Your task to perform on an android device: open chrome and create a bookmark for the current page Image 0: 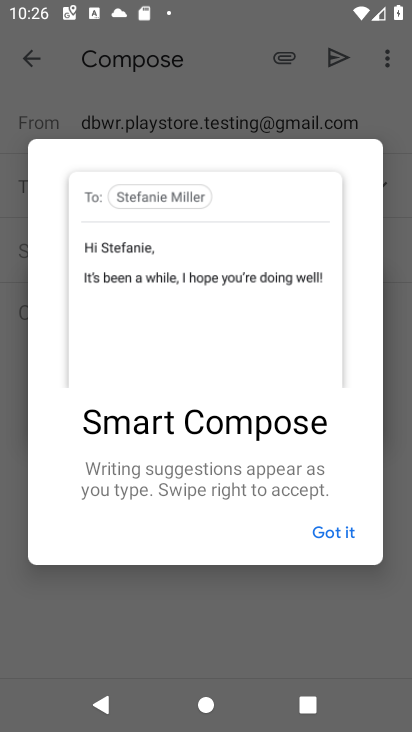
Step 0: press home button
Your task to perform on an android device: open chrome and create a bookmark for the current page Image 1: 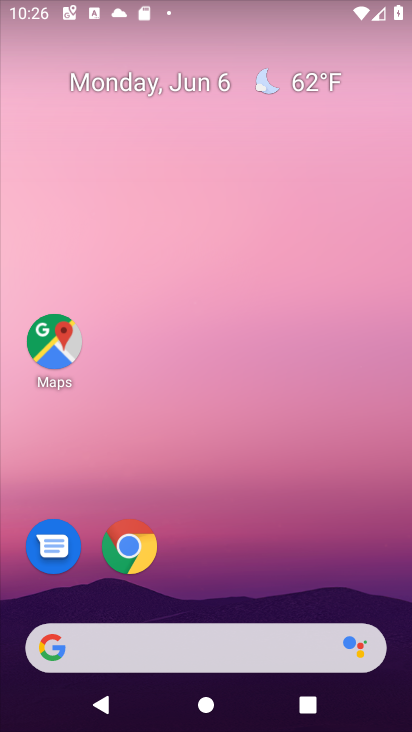
Step 1: click (130, 551)
Your task to perform on an android device: open chrome and create a bookmark for the current page Image 2: 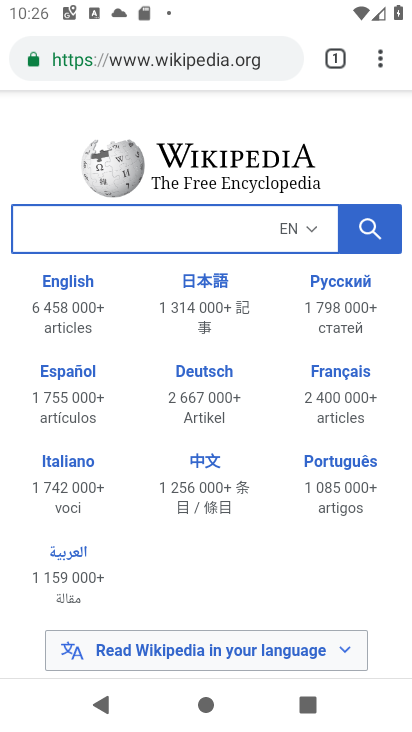
Step 2: click (379, 63)
Your task to perform on an android device: open chrome and create a bookmark for the current page Image 3: 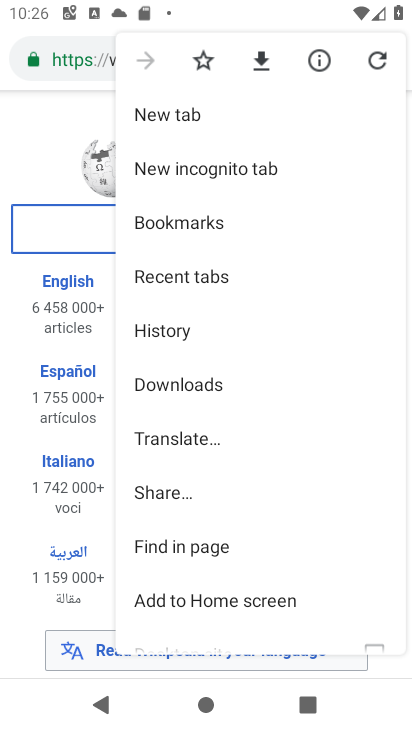
Step 3: click (205, 61)
Your task to perform on an android device: open chrome and create a bookmark for the current page Image 4: 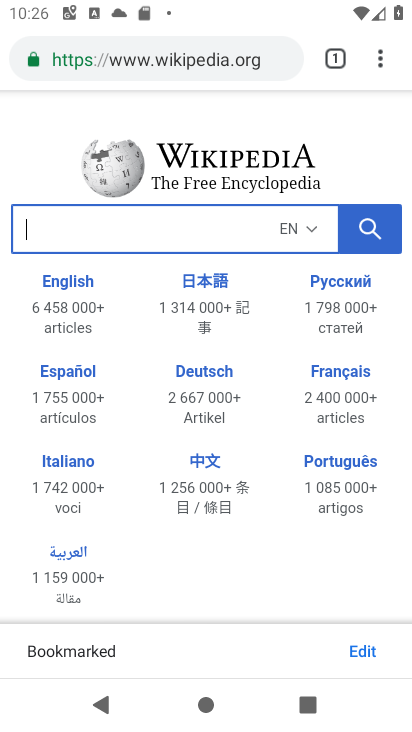
Step 4: task complete